Your task to perform on an android device: Open display settings Image 0: 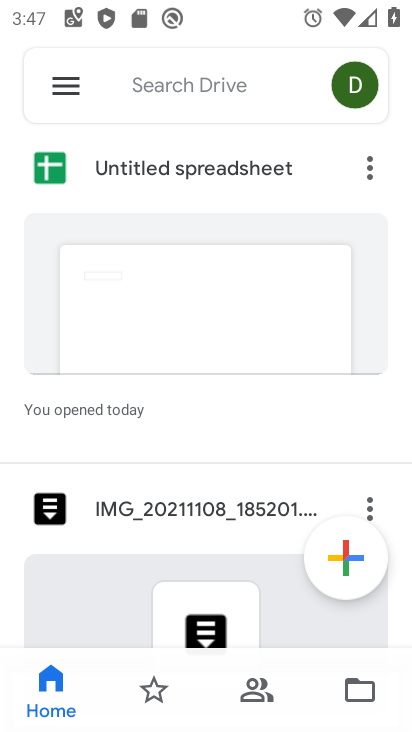
Step 0: press home button
Your task to perform on an android device: Open display settings Image 1: 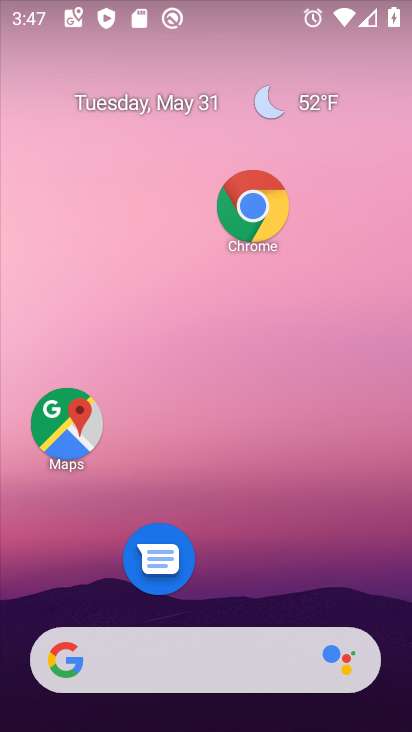
Step 1: drag from (241, 573) to (242, 131)
Your task to perform on an android device: Open display settings Image 2: 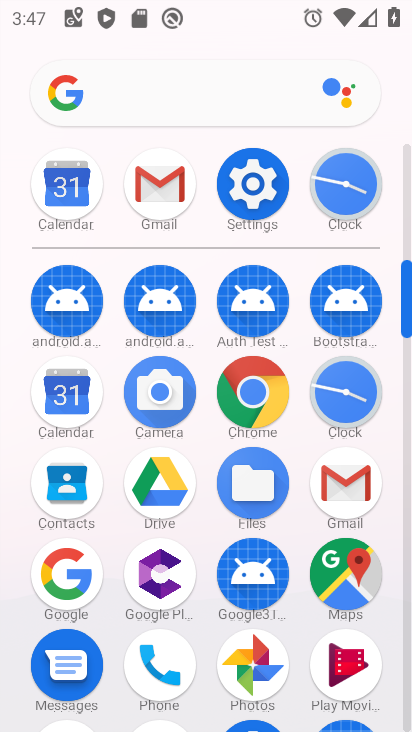
Step 2: click (251, 162)
Your task to perform on an android device: Open display settings Image 3: 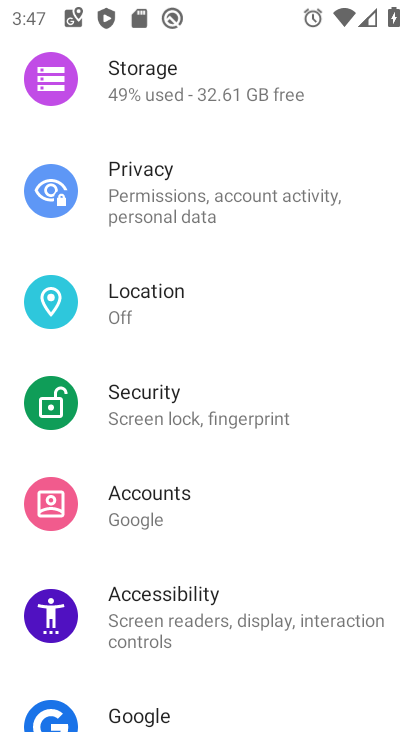
Step 3: drag from (197, 224) to (198, 520)
Your task to perform on an android device: Open display settings Image 4: 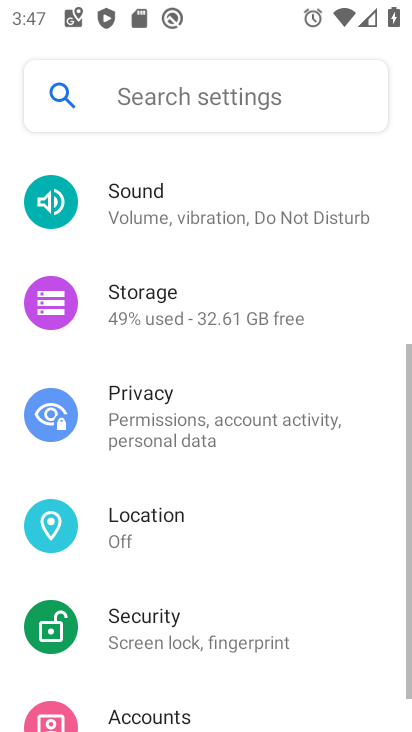
Step 4: drag from (202, 218) to (189, 446)
Your task to perform on an android device: Open display settings Image 5: 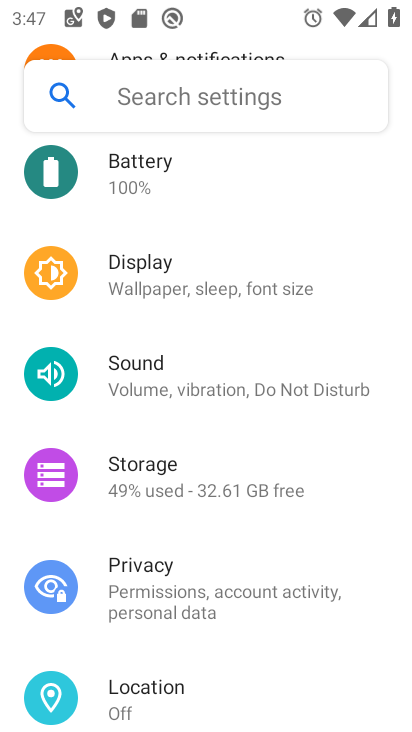
Step 5: click (176, 291)
Your task to perform on an android device: Open display settings Image 6: 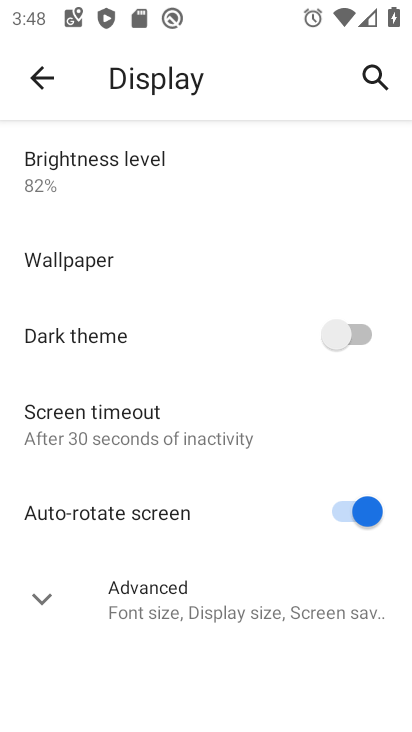
Step 6: task complete